Your task to perform on an android device: turn on javascript in the chrome app Image 0: 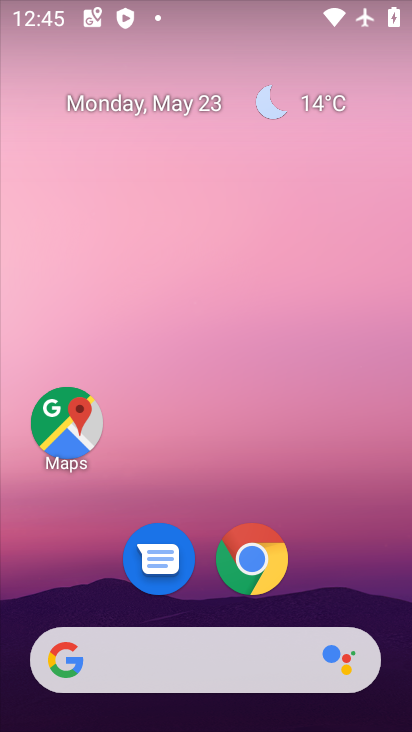
Step 0: click (246, 561)
Your task to perform on an android device: turn on javascript in the chrome app Image 1: 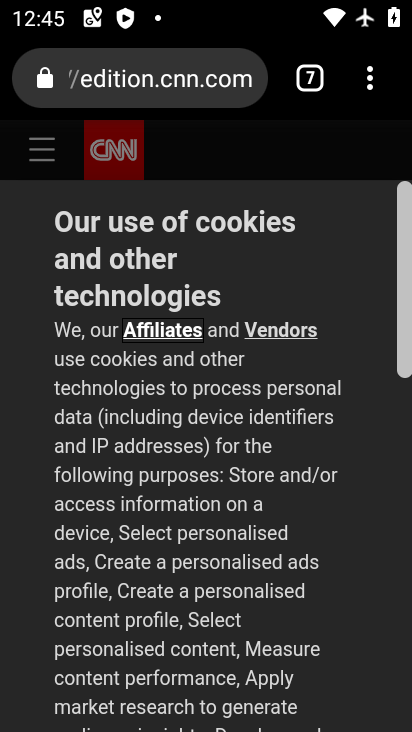
Step 1: click (370, 82)
Your task to perform on an android device: turn on javascript in the chrome app Image 2: 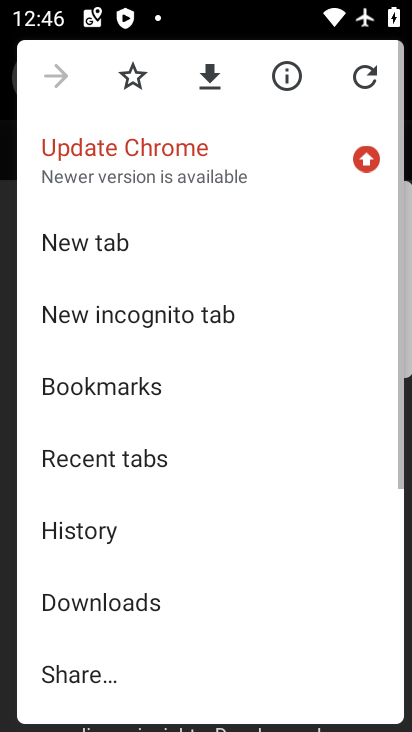
Step 2: drag from (244, 643) to (234, 52)
Your task to perform on an android device: turn on javascript in the chrome app Image 3: 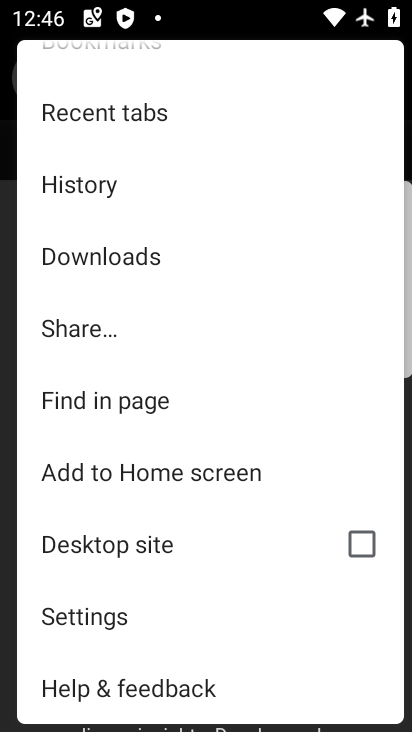
Step 3: click (85, 621)
Your task to perform on an android device: turn on javascript in the chrome app Image 4: 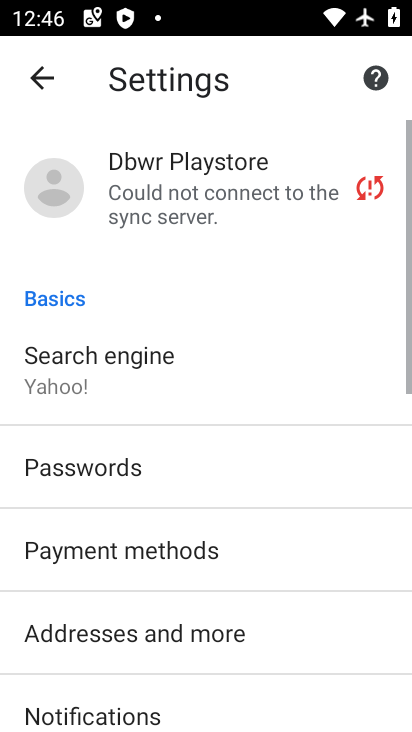
Step 4: drag from (235, 676) to (242, 83)
Your task to perform on an android device: turn on javascript in the chrome app Image 5: 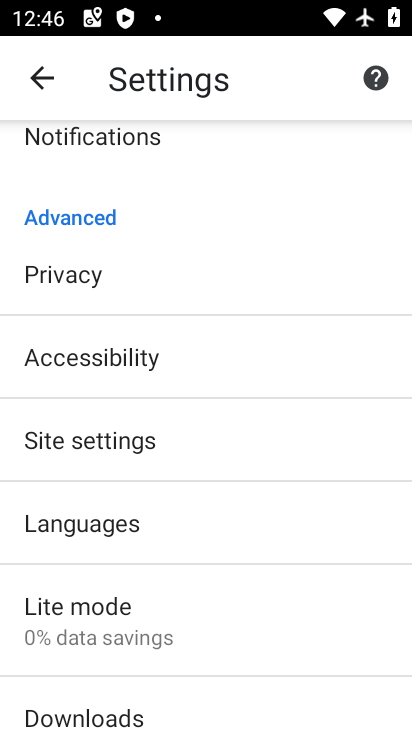
Step 5: click (82, 446)
Your task to perform on an android device: turn on javascript in the chrome app Image 6: 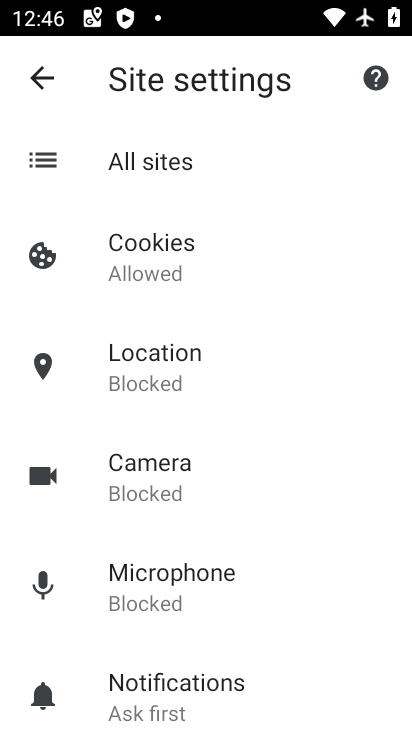
Step 6: drag from (302, 667) to (293, 188)
Your task to perform on an android device: turn on javascript in the chrome app Image 7: 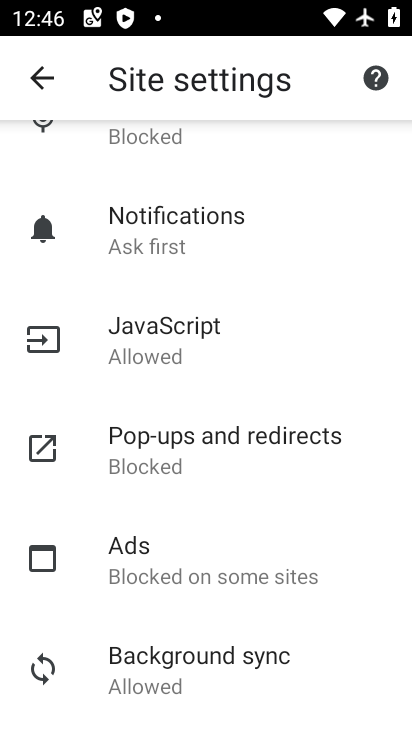
Step 7: click (137, 359)
Your task to perform on an android device: turn on javascript in the chrome app Image 8: 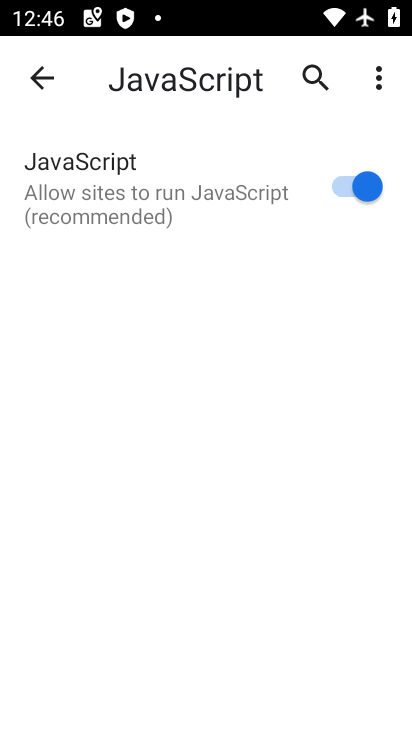
Step 8: task complete